Your task to perform on an android device: turn off location history Image 0: 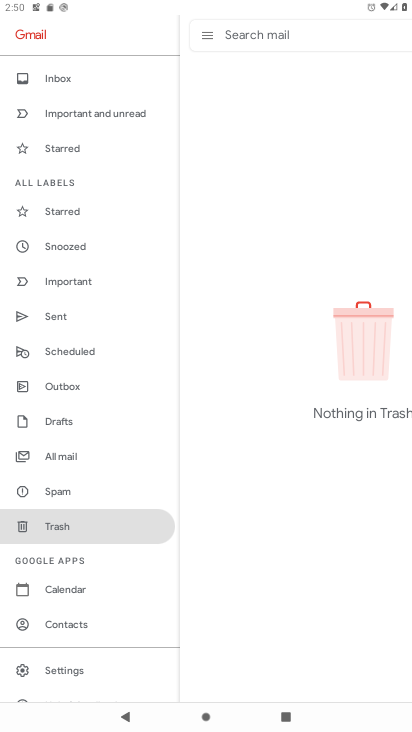
Step 0: press home button
Your task to perform on an android device: turn off location history Image 1: 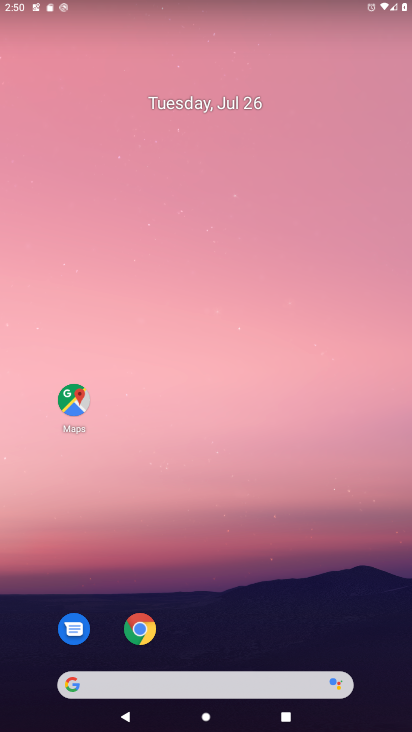
Step 1: drag from (207, 649) to (211, 393)
Your task to perform on an android device: turn off location history Image 2: 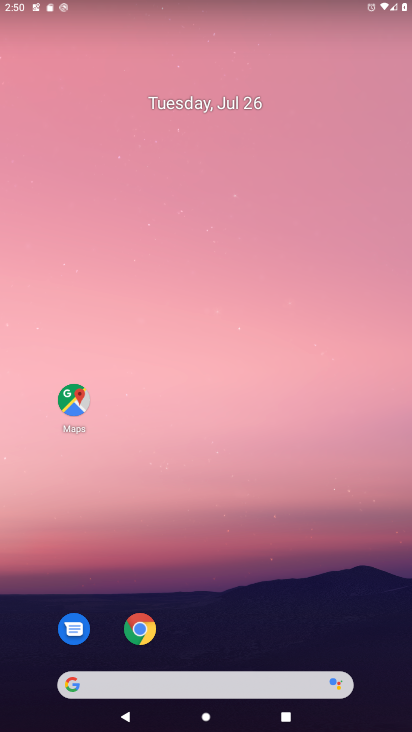
Step 2: drag from (224, 660) to (223, 239)
Your task to perform on an android device: turn off location history Image 3: 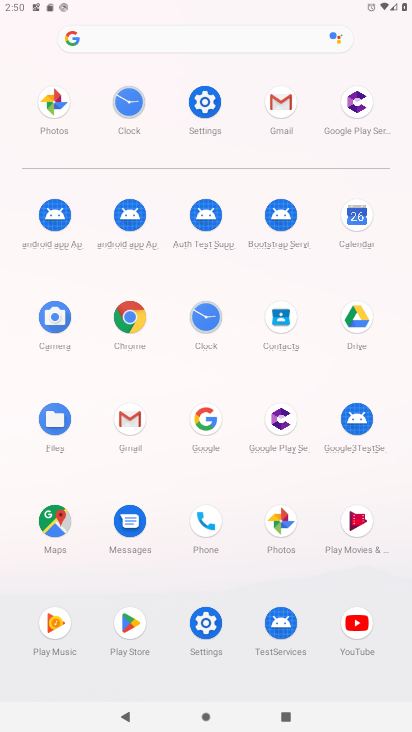
Step 3: click (214, 104)
Your task to perform on an android device: turn off location history Image 4: 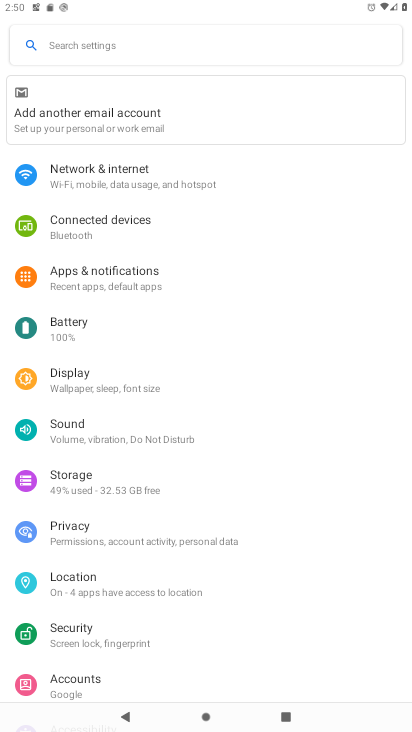
Step 4: click (93, 580)
Your task to perform on an android device: turn off location history Image 5: 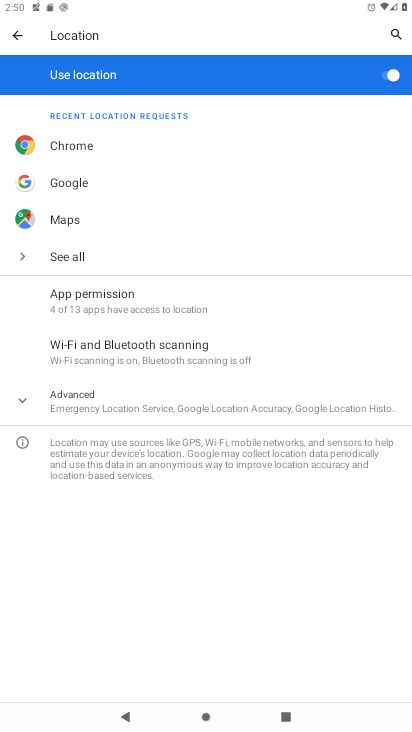
Step 5: click (389, 71)
Your task to perform on an android device: turn off location history Image 6: 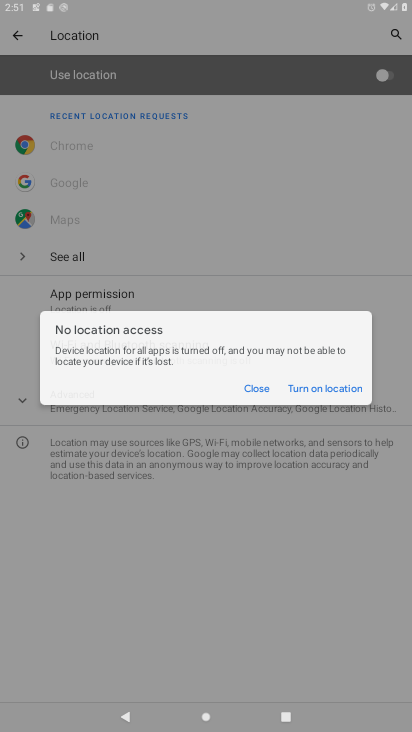
Step 6: task complete